Your task to perform on an android device: Open display settings Image 0: 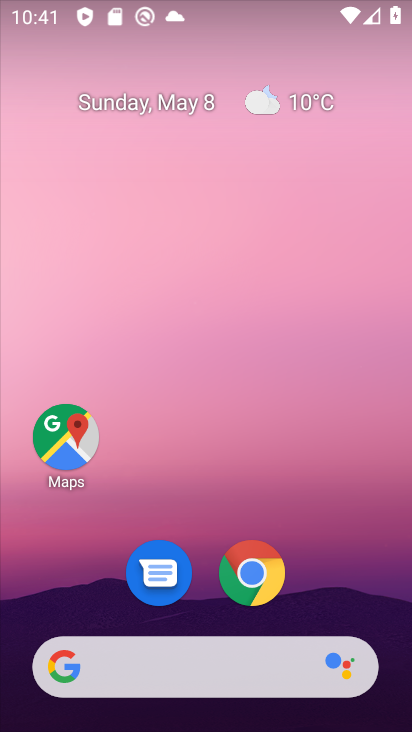
Step 0: drag from (349, 528) to (328, 139)
Your task to perform on an android device: Open display settings Image 1: 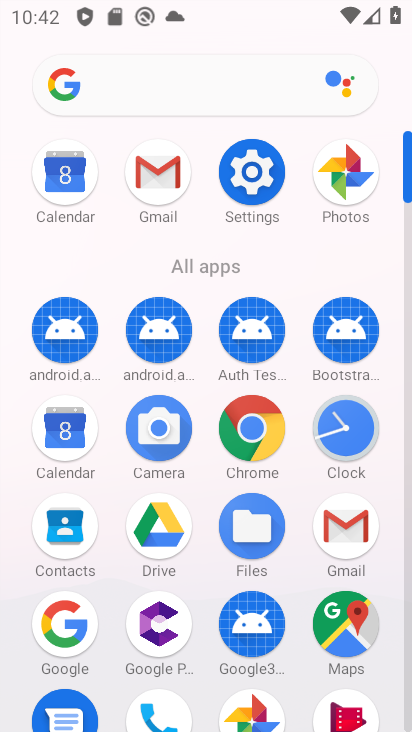
Step 1: click (244, 152)
Your task to perform on an android device: Open display settings Image 2: 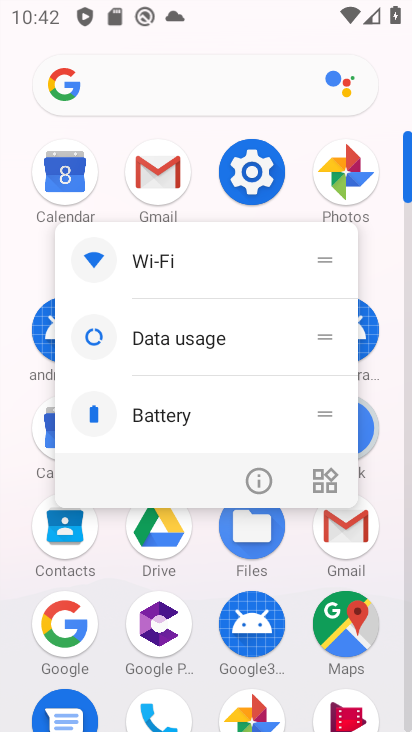
Step 2: click (244, 152)
Your task to perform on an android device: Open display settings Image 3: 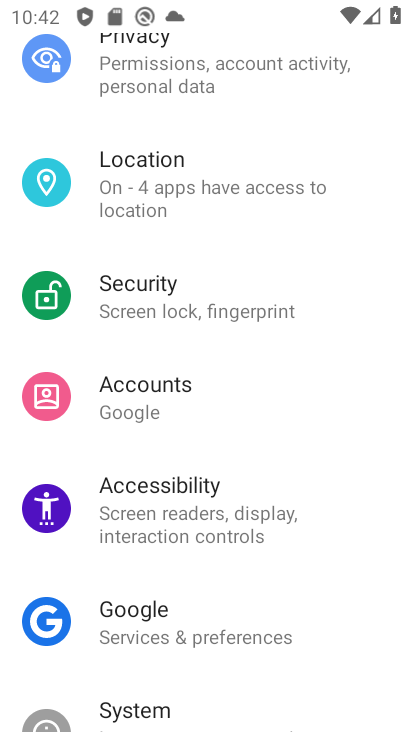
Step 3: drag from (259, 192) to (220, 728)
Your task to perform on an android device: Open display settings Image 4: 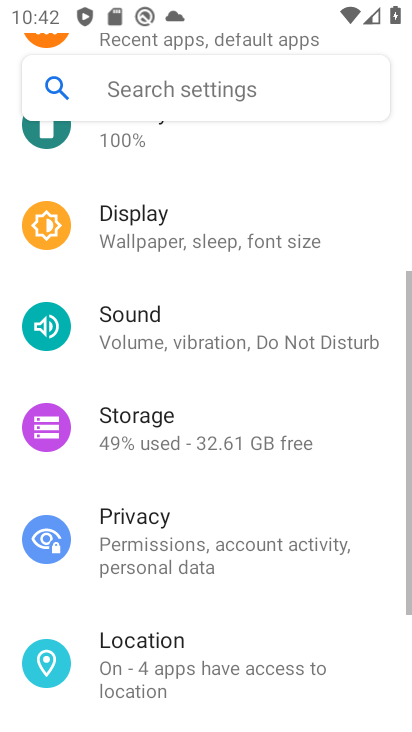
Step 4: drag from (237, 273) to (251, 490)
Your task to perform on an android device: Open display settings Image 5: 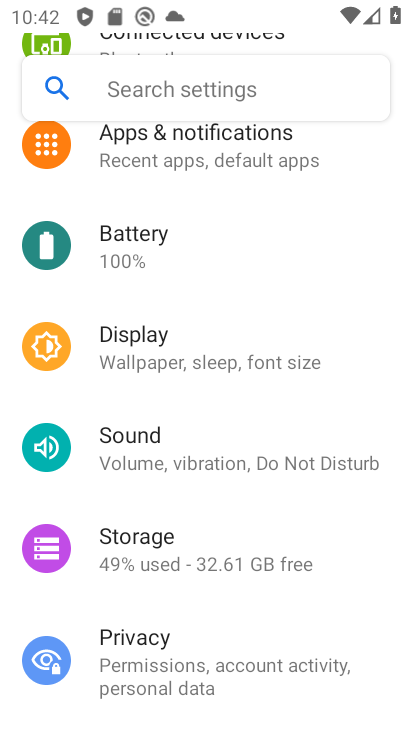
Step 5: click (197, 353)
Your task to perform on an android device: Open display settings Image 6: 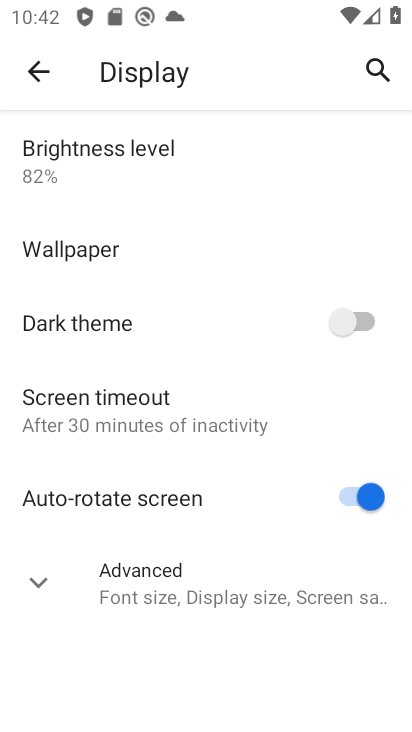
Step 6: task complete